Your task to perform on an android device: change notification settings in the gmail app Image 0: 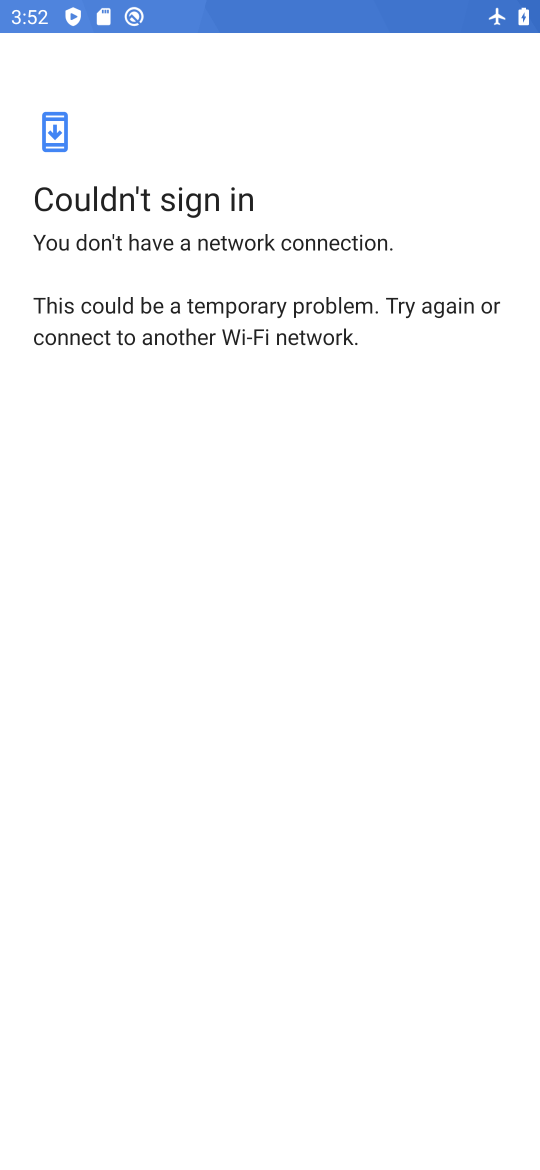
Step 0: task complete